Your task to perform on an android device: Go to CNN.com Image 0: 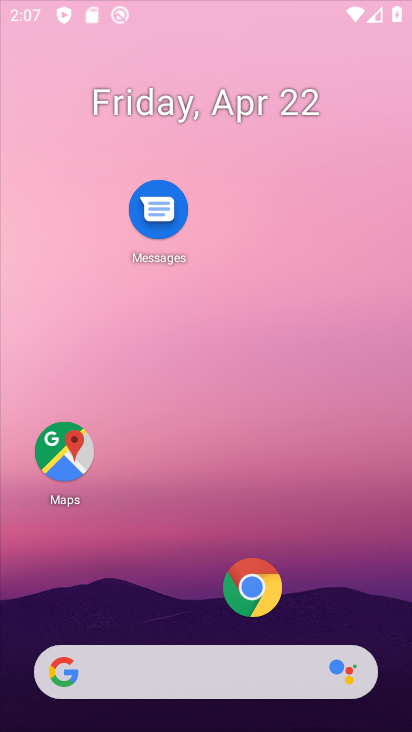
Step 0: click (248, 595)
Your task to perform on an android device: Go to CNN.com Image 1: 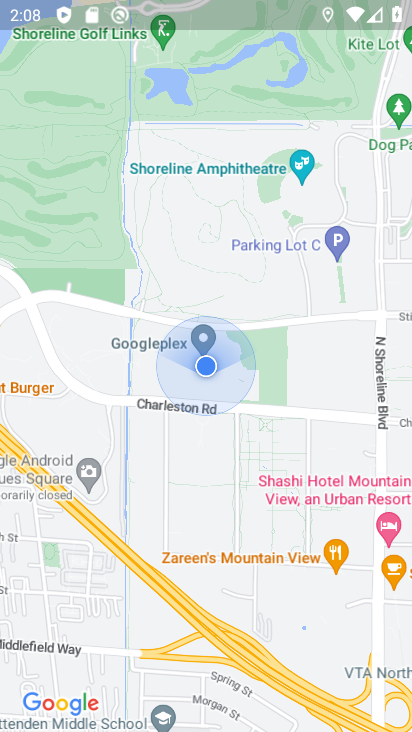
Step 1: press home button
Your task to perform on an android device: Go to CNN.com Image 2: 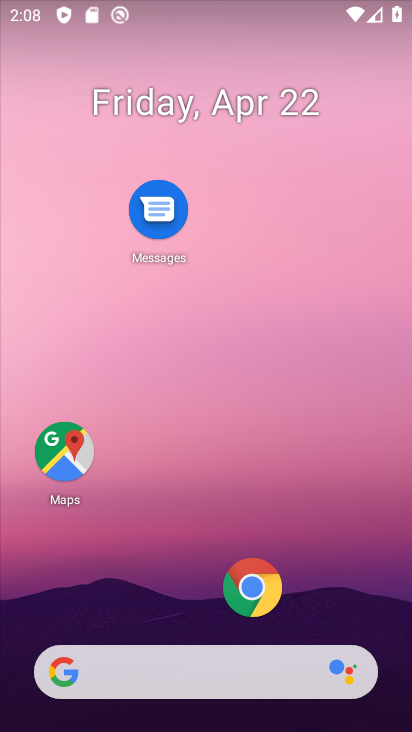
Step 2: click (227, 679)
Your task to perform on an android device: Go to CNN.com Image 3: 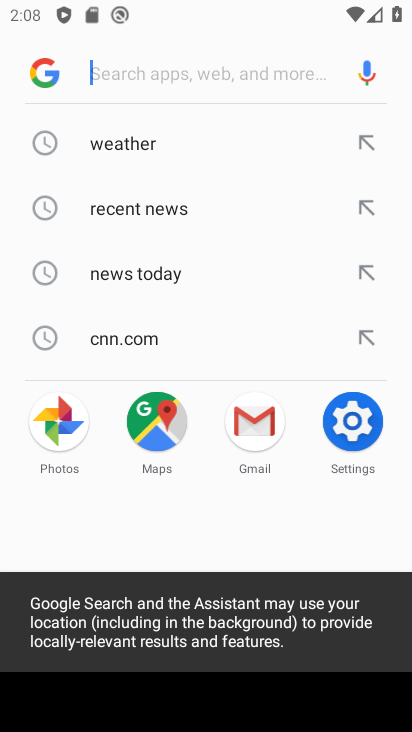
Step 3: type "CNN.com"
Your task to perform on an android device: Go to CNN.com Image 4: 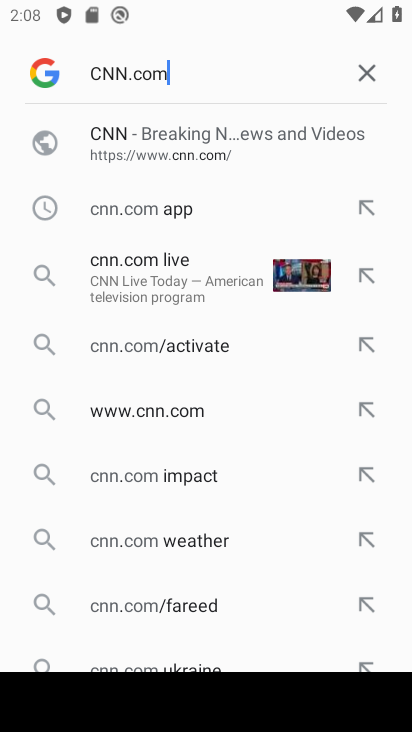
Step 4: click (140, 131)
Your task to perform on an android device: Go to CNN.com Image 5: 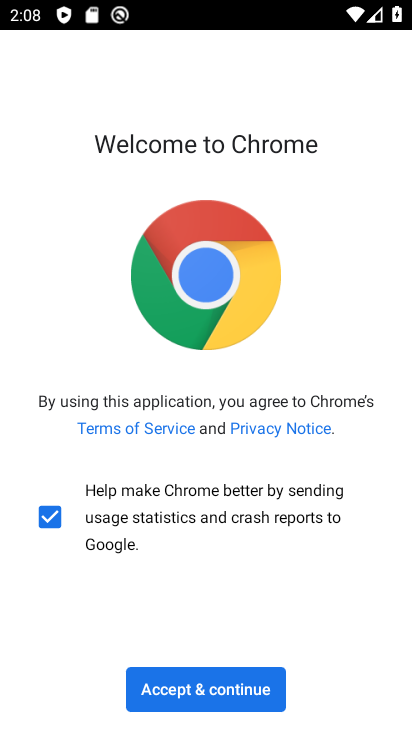
Step 5: click (190, 678)
Your task to perform on an android device: Go to CNN.com Image 6: 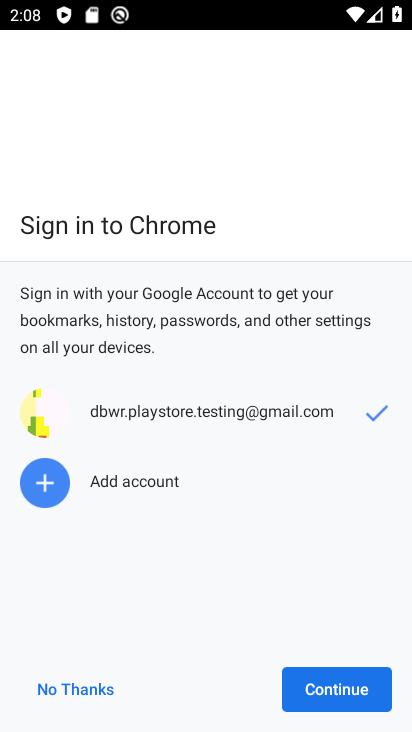
Step 6: click (297, 689)
Your task to perform on an android device: Go to CNN.com Image 7: 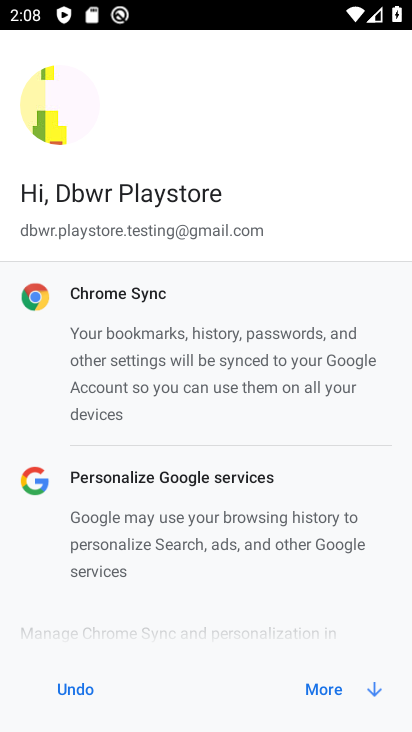
Step 7: click (338, 691)
Your task to perform on an android device: Go to CNN.com Image 8: 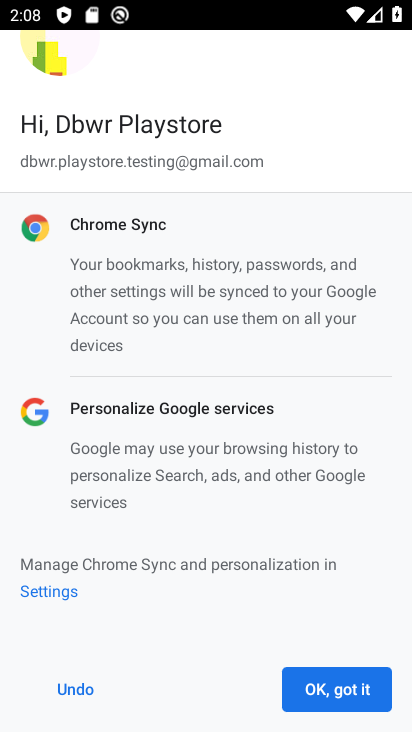
Step 8: click (338, 691)
Your task to perform on an android device: Go to CNN.com Image 9: 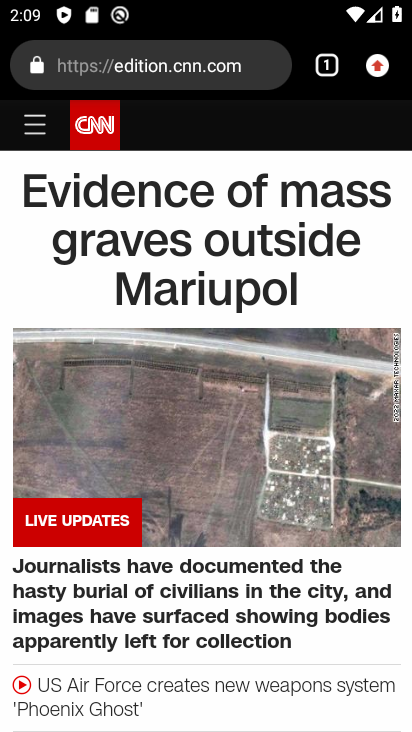
Step 9: task complete